Your task to perform on an android device: toggle javascript in the chrome app Image 0: 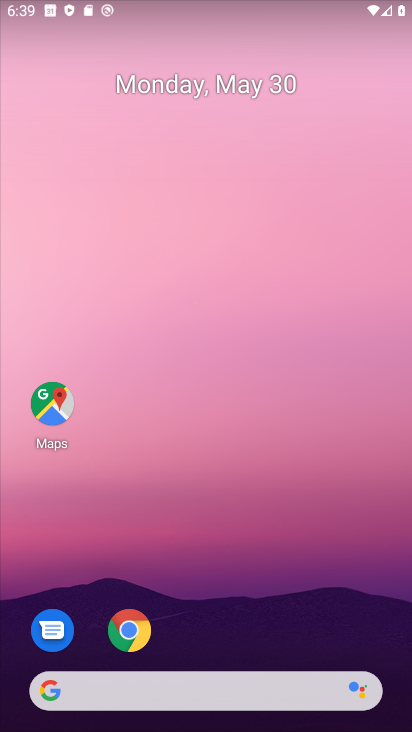
Step 0: drag from (333, 630) to (285, 2)
Your task to perform on an android device: toggle javascript in the chrome app Image 1: 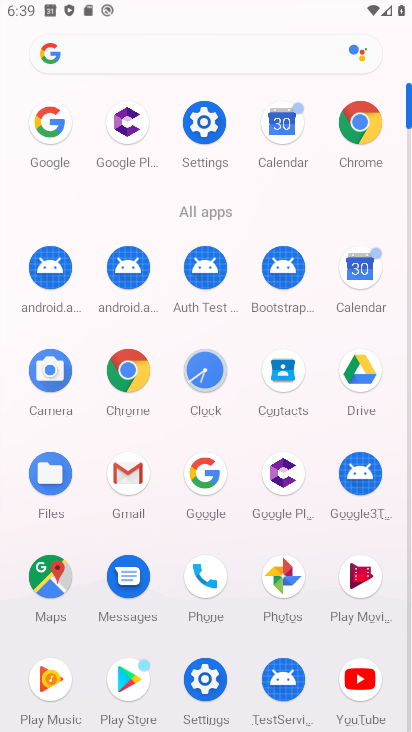
Step 1: click (368, 128)
Your task to perform on an android device: toggle javascript in the chrome app Image 2: 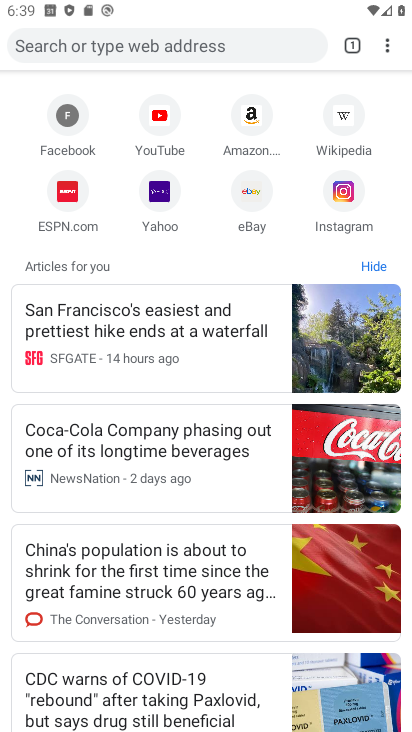
Step 2: click (393, 41)
Your task to perform on an android device: toggle javascript in the chrome app Image 3: 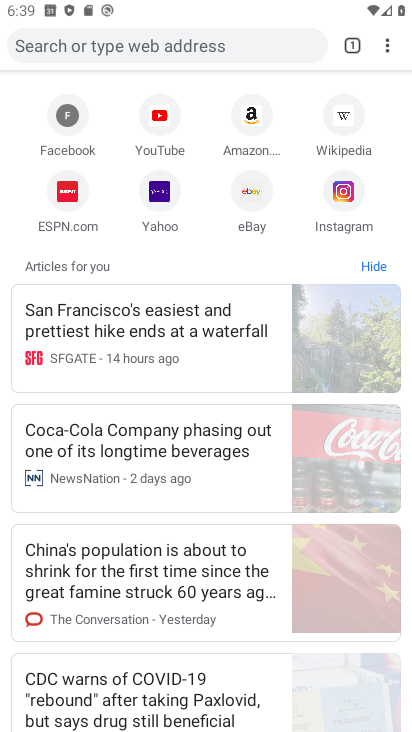
Step 3: click (392, 39)
Your task to perform on an android device: toggle javascript in the chrome app Image 4: 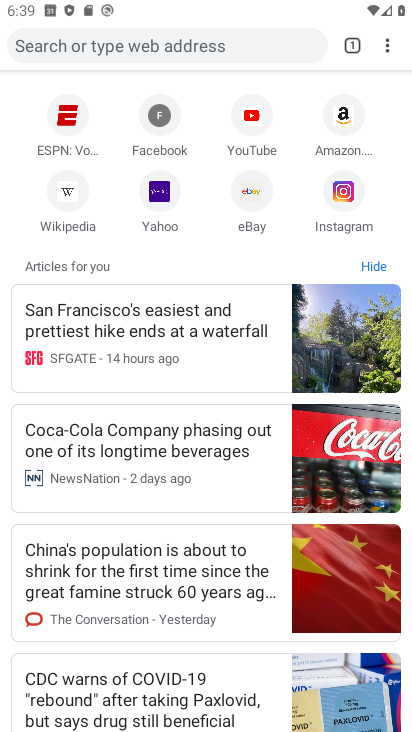
Step 4: click (385, 39)
Your task to perform on an android device: toggle javascript in the chrome app Image 5: 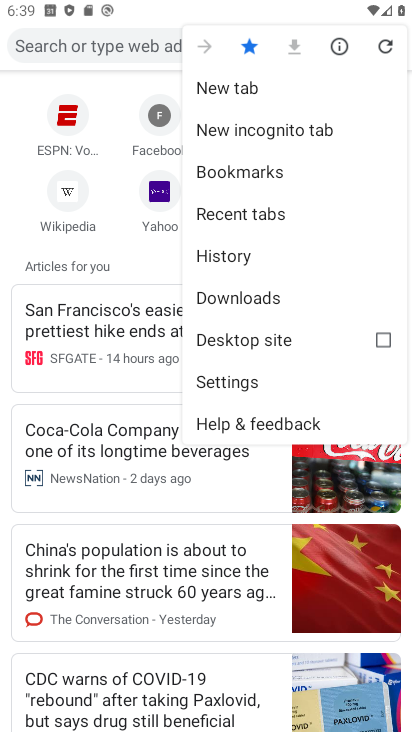
Step 5: click (268, 377)
Your task to perform on an android device: toggle javascript in the chrome app Image 6: 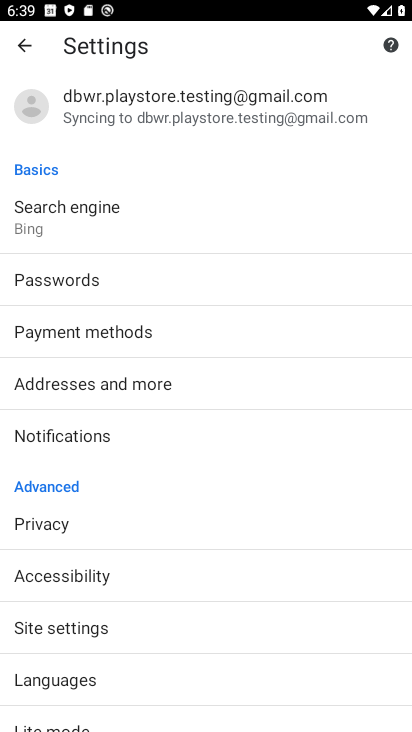
Step 6: click (90, 628)
Your task to perform on an android device: toggle javascript in the chrome app Image 7: 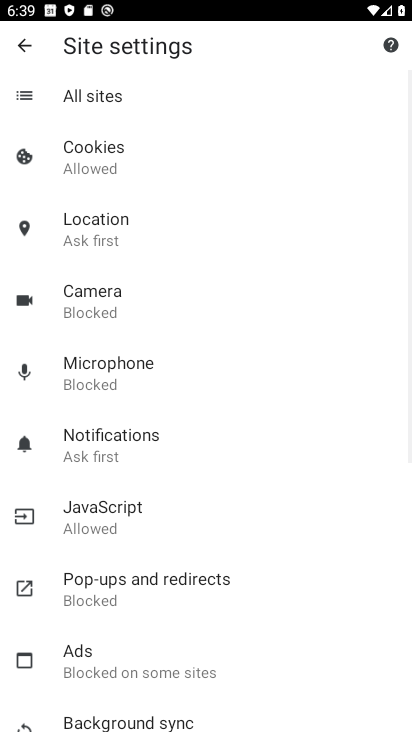
Step 7: click (131, 517)
Your task to perform on an android device: toggle javascript in the chrome app Image 8: 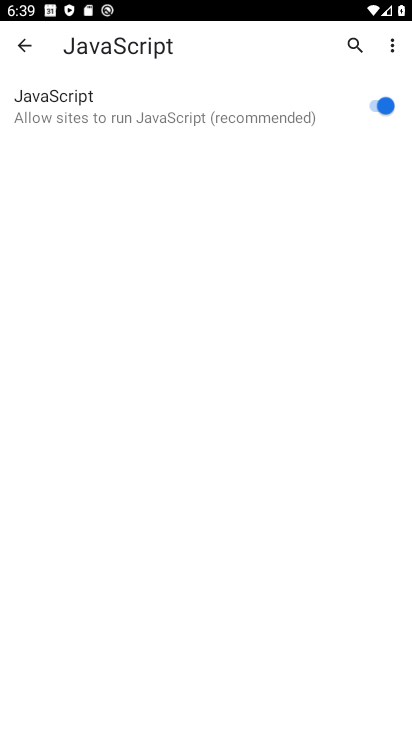
Step 8: click (178, 534)
Your task to perform on an android device: toggle javascript in the chrome app Image 9: 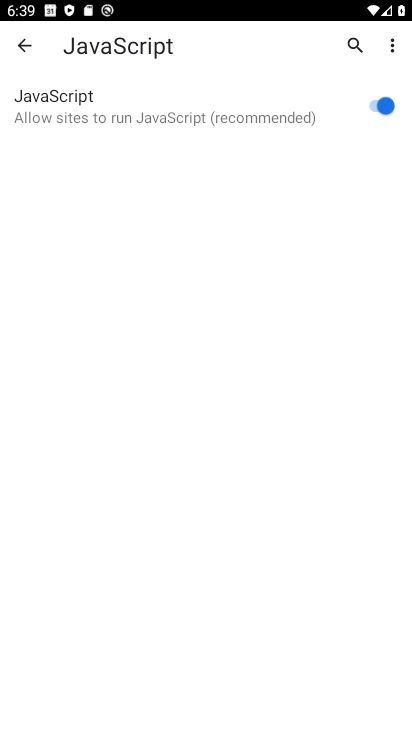
Step 9: click (366, 120)
Your task to perform on an android device: toggle javascript in the chrome app Image 10: 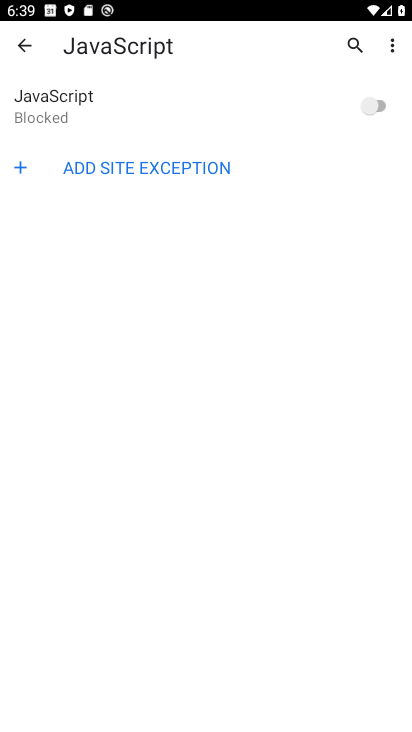
Step 10: task complete